Your task to perform on an android device: Open the phone app and click the voicemail tab. Image 0: 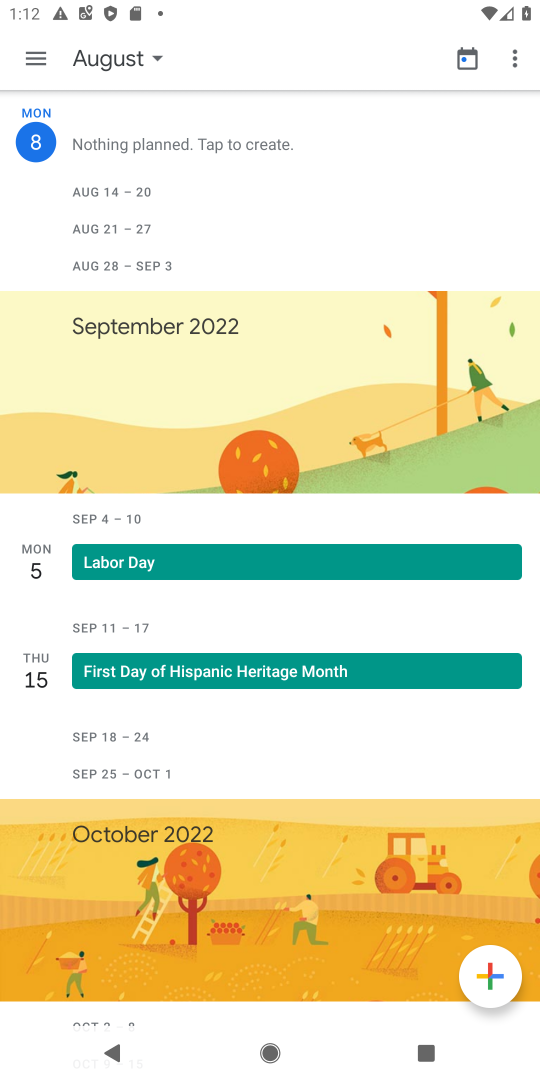
Step 0: press home button
Your task to perform on an android device: Open the phone app and click the voicemail tab. Image 1: 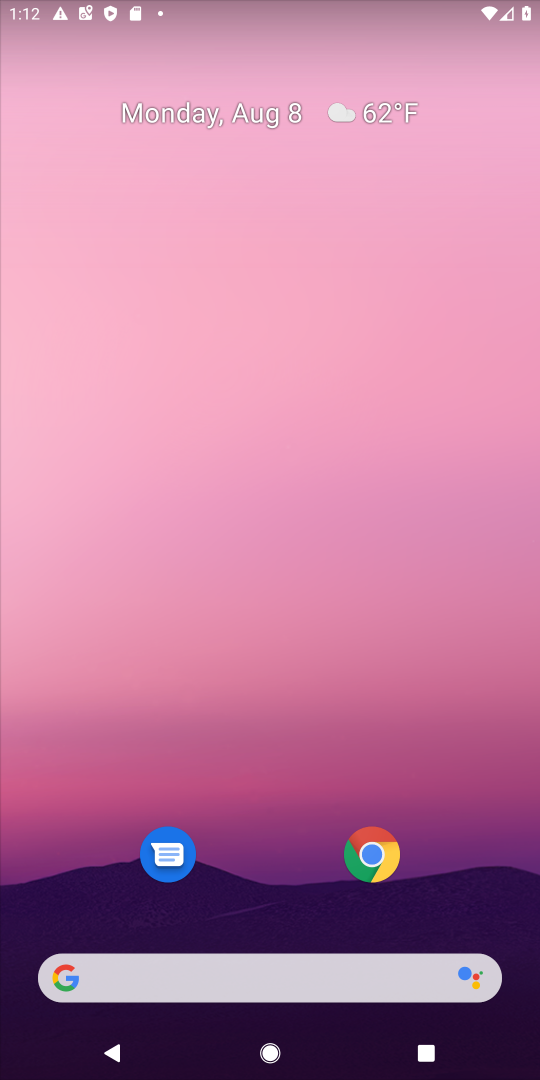
Step 1: drag from (277, 868) to (322, 317)
Your task to perform on an android device: Open the phone app and click the voicemail tab. Image 2: 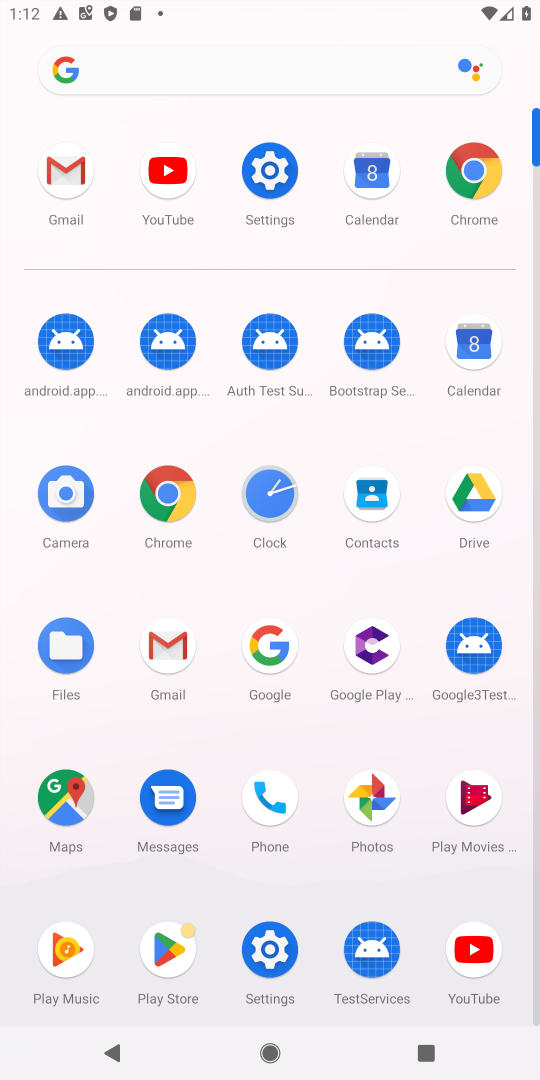
Step 2: click (260, 801)
Your task to perform on an android device: Open the phone app and click the voicemail tab. Image 3: 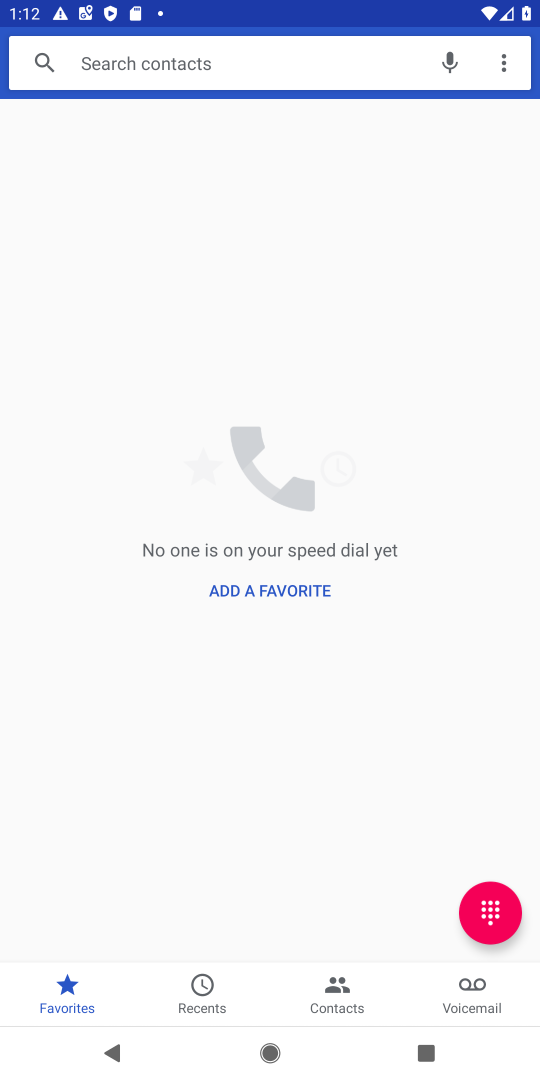
Step 3: click (476, 981)
Your task to perform on an android device: Open the phone app and click the voicemail tab. Image 4: 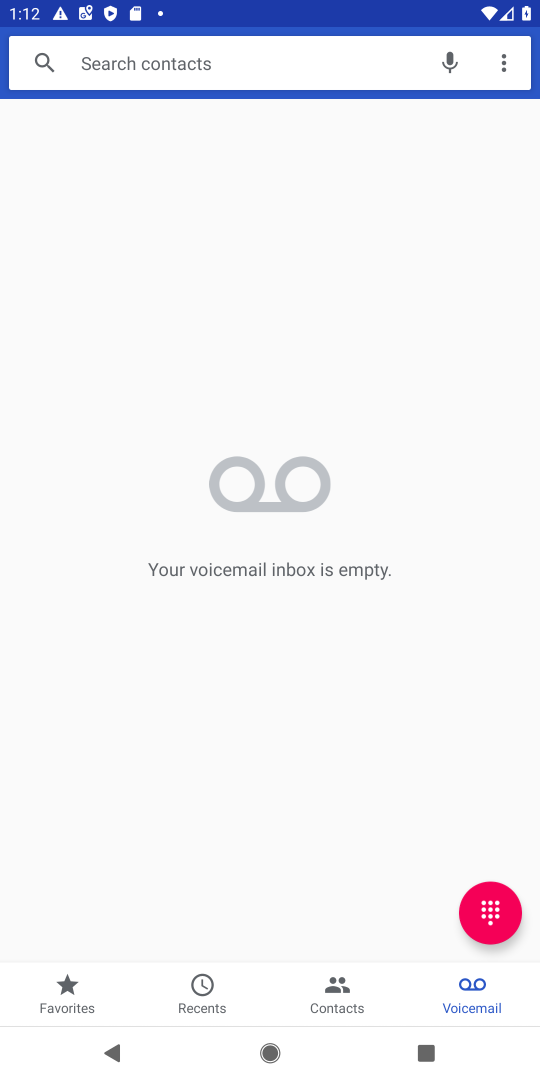
Step 4: task complete